Your task to perform on an android device: Search for pizza restaurants on Maps Image 0: 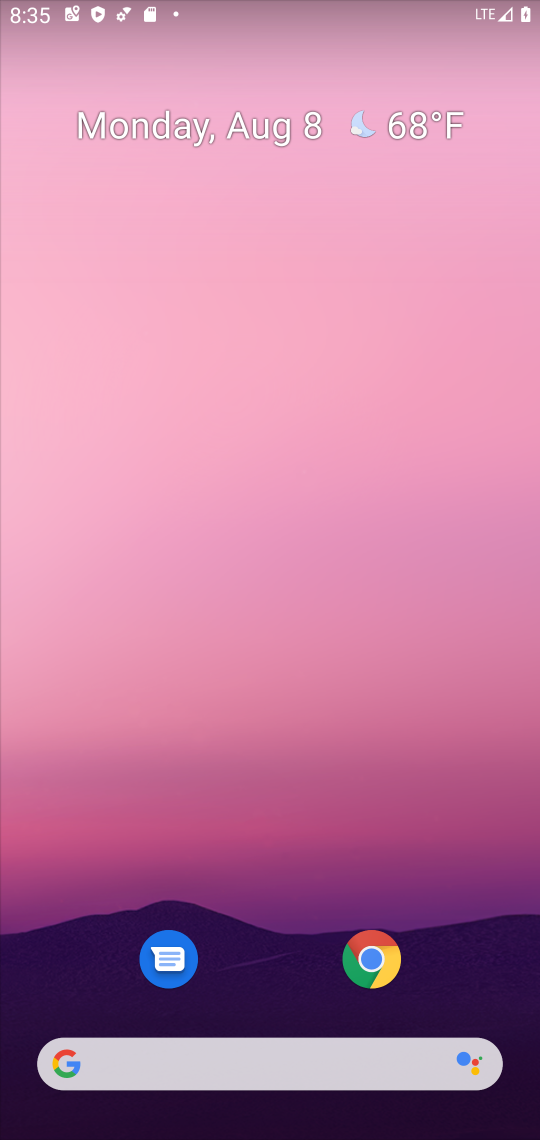
Step 0: drag from (481, 988) to (244, 41)
Your task to perform on an android device: Search for pizza restaurants on Maps Image 1: 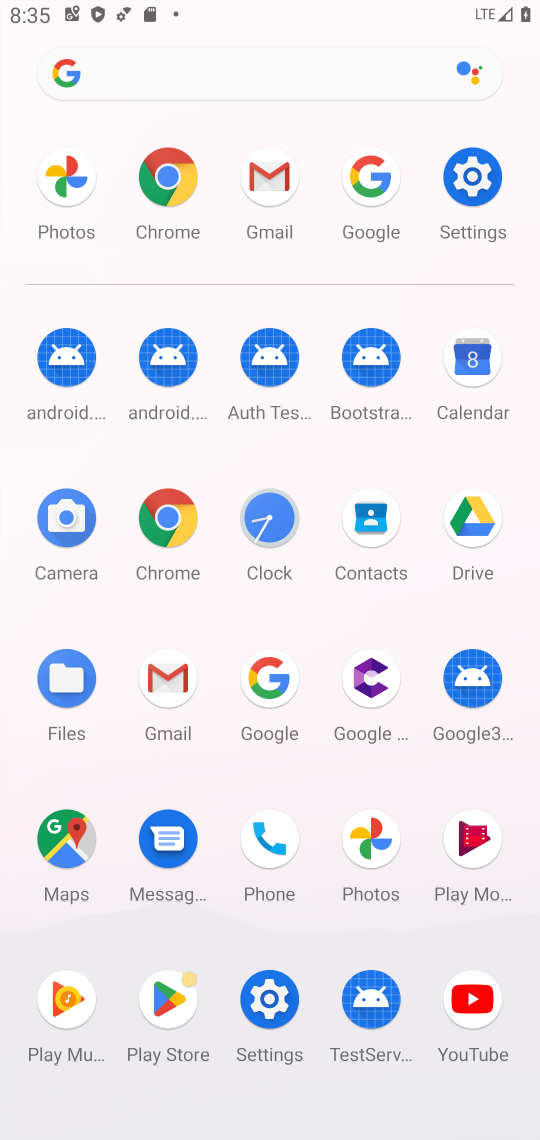
Step 1: click (45, 844)
Your task to perform on an android device: Search for pizza restaurants on Maps Image 2: 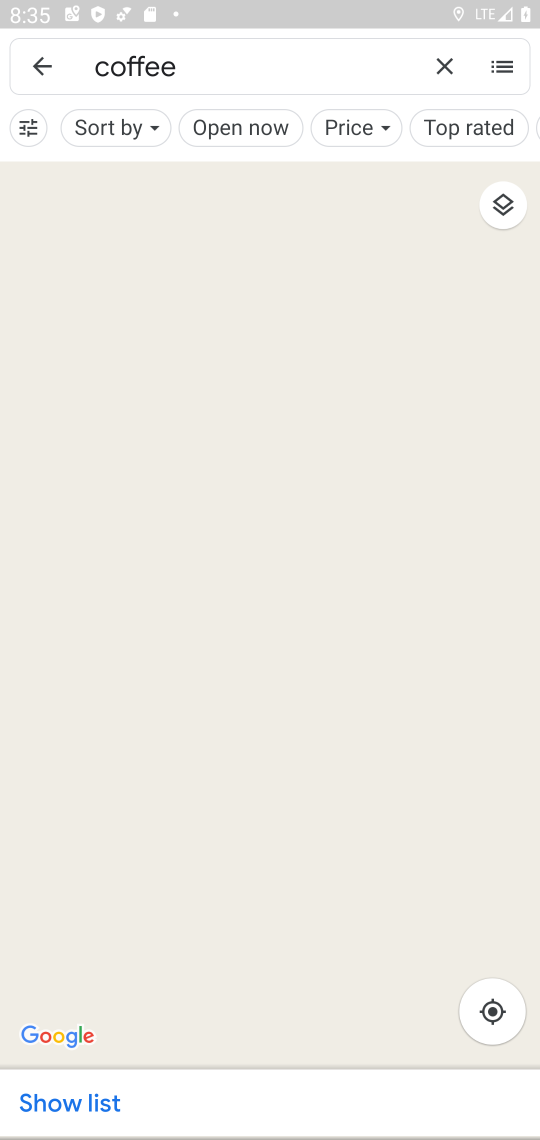
Step 2: click (443, 63)
Your task to perform on an android device: Search for pizza restaurants on Maps Image 3: 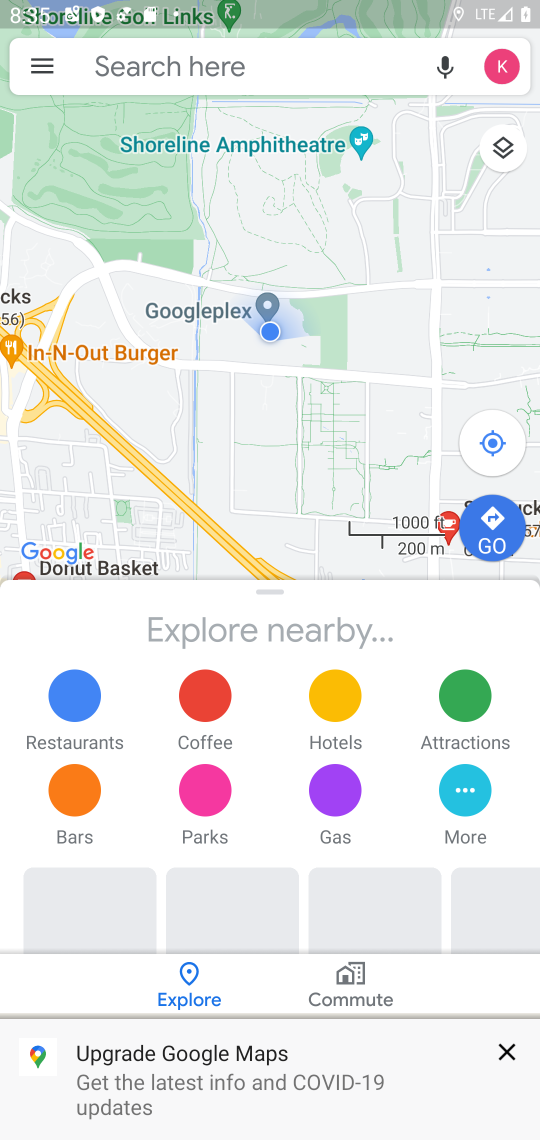
Step 3: click (193, 66)
Your task to perform on an android device: Search for pizza restaurants on Maps Image 4: 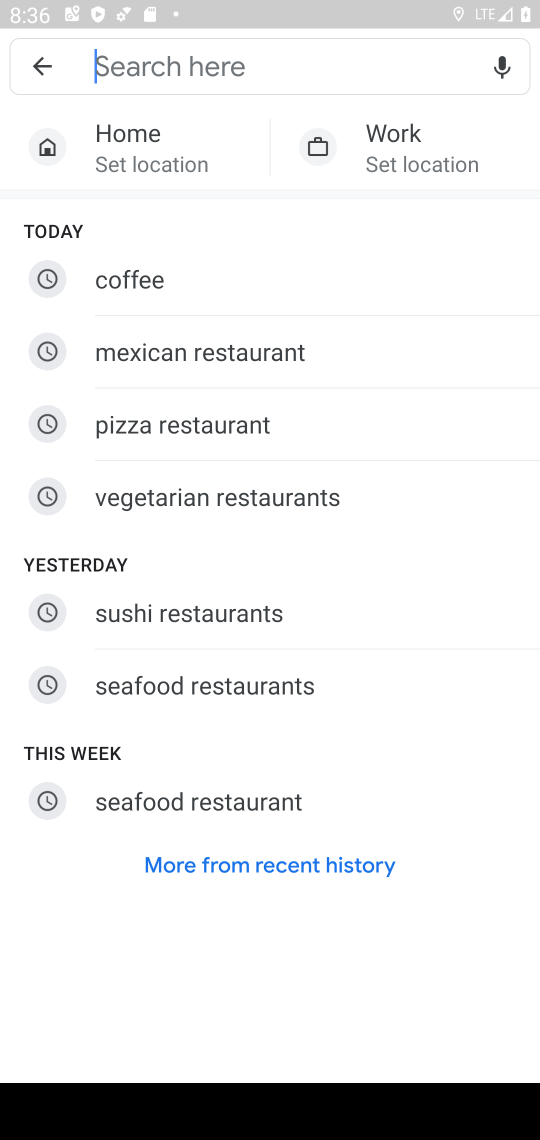
Step 4: click (151, 418)
Your task to perform on an android device: Search for pizza restaurants on Maps Image 5: 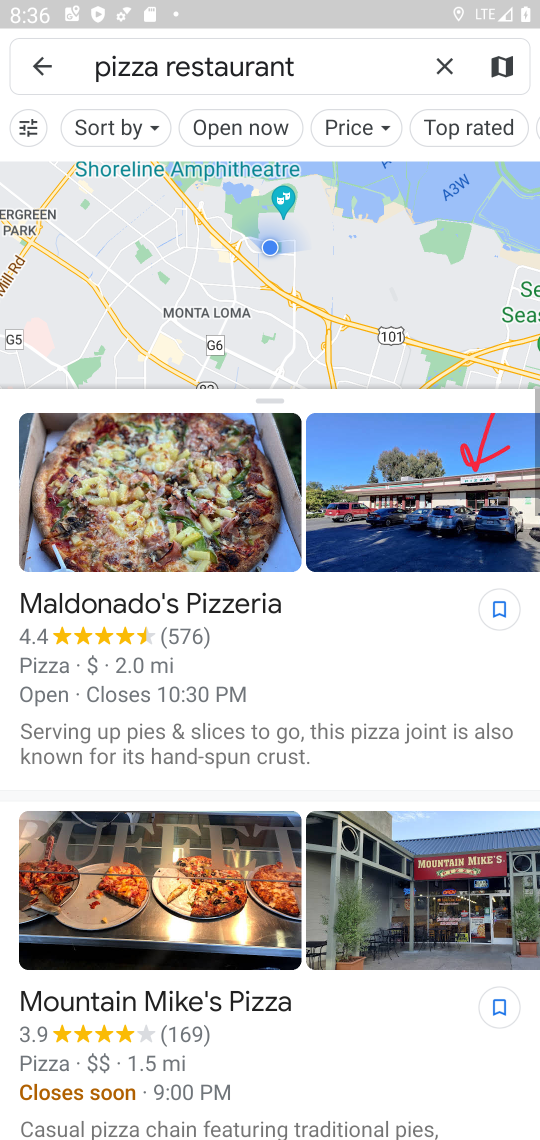
Step 5: task complete